Your task to perform on an android device: Go to network settings Image 0: 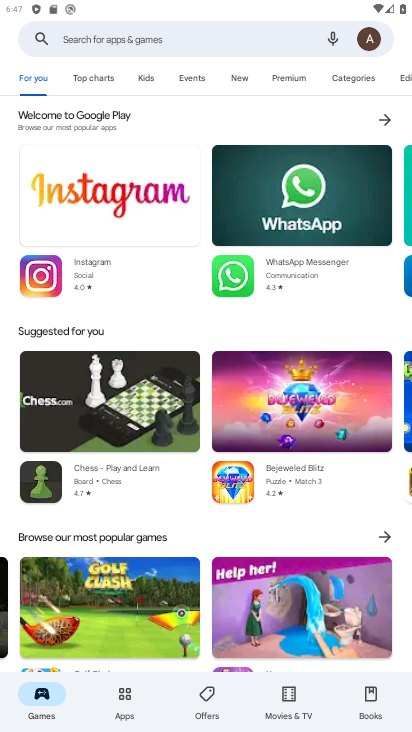
Step 0: press home button
Your task to perform on an android device: Go to network settings Image 1: 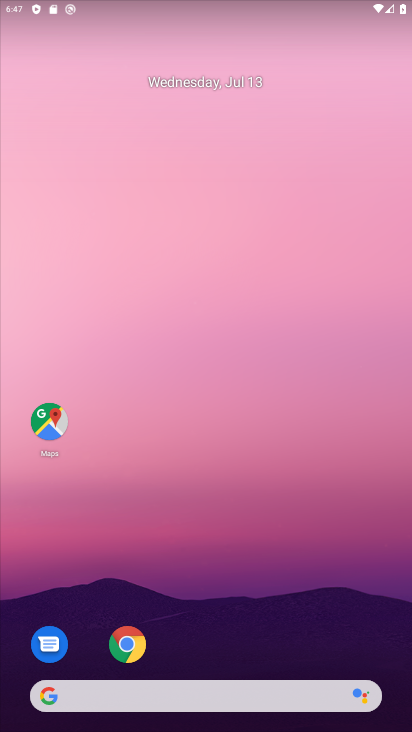
Step 1: drag from (253, 553) to (150, 128)
Your task to perform on an android device: Go to network settings Image 2: 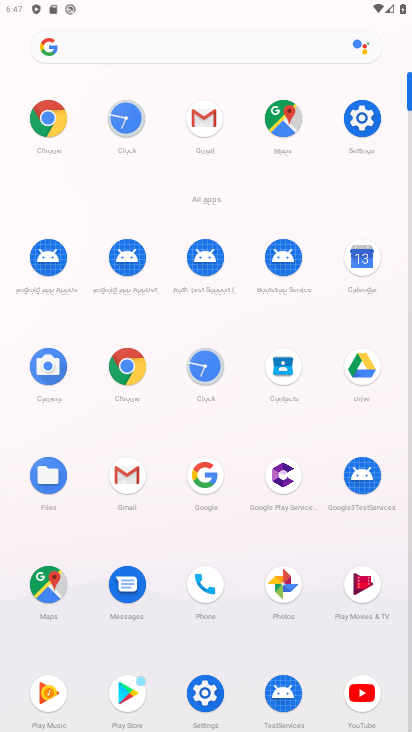
Step 2: click (364, 116)
Your task to perform on an android device: Go to network settings Image 3: 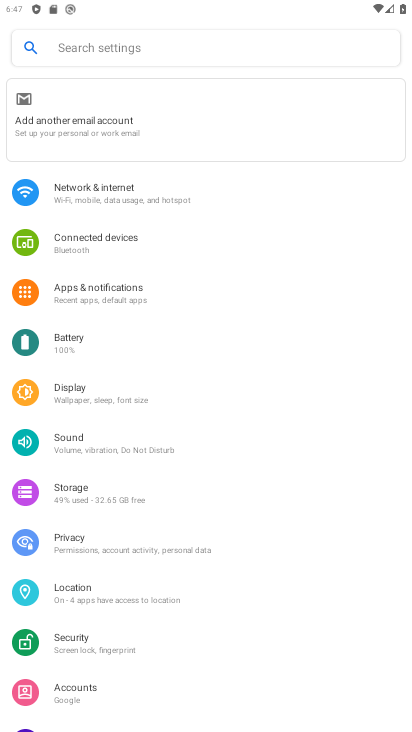
Step 3: click (113, 188)
Your task to perform on an android device: Go to network settings Image 4: 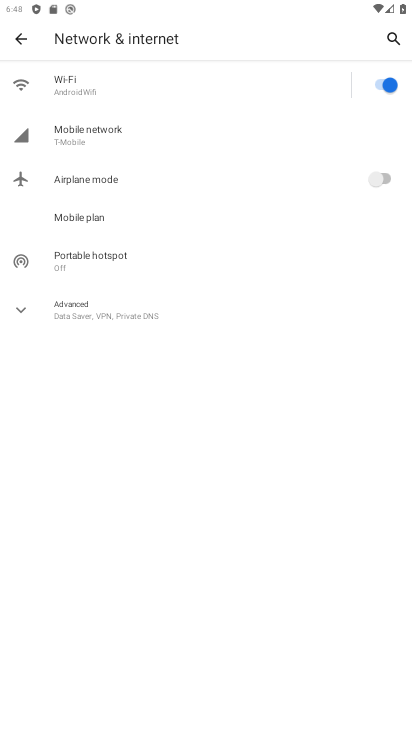
Step 4: task complete